Your task to perform on an android device: search for starred emails in the gmail app Image 0: 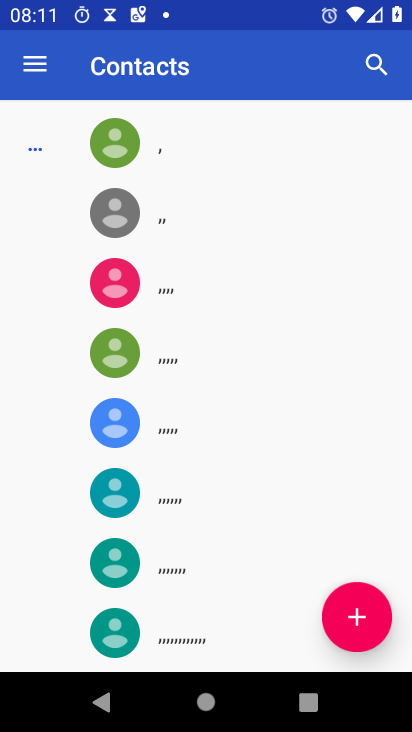
Step 0: press home button
Your task to perform on an android device: search for starred emails in the gmail app Image 1: 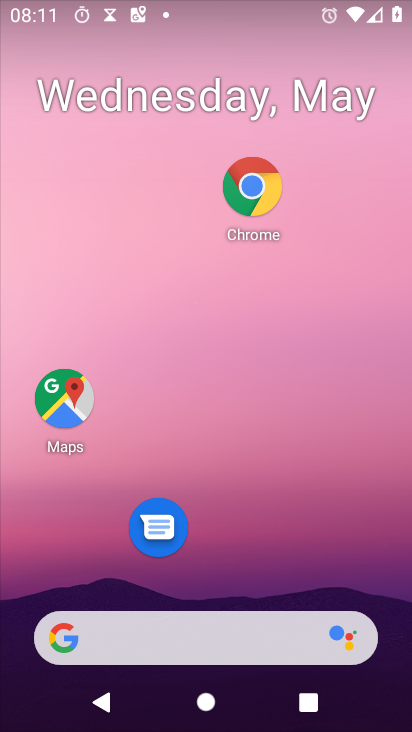
Step 1: drag from (293, 569) to (340, 52)
Your task to perform on an android device: search for starred emails in the gmail app Image 2: 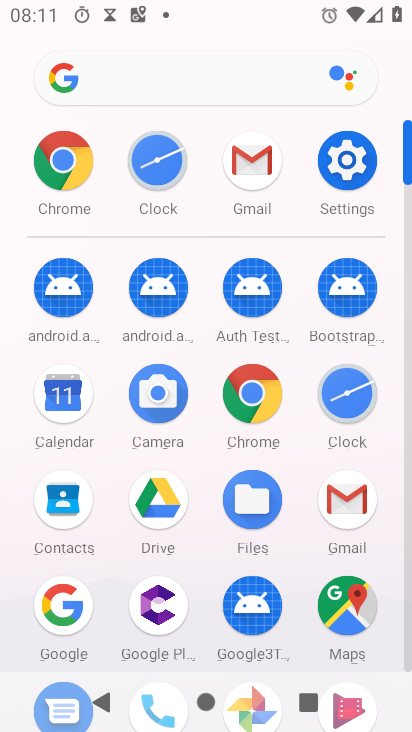
Step 2: click (340, 493)
Your task to perform on an android device: search for starred emails in the gmail app Image 3: 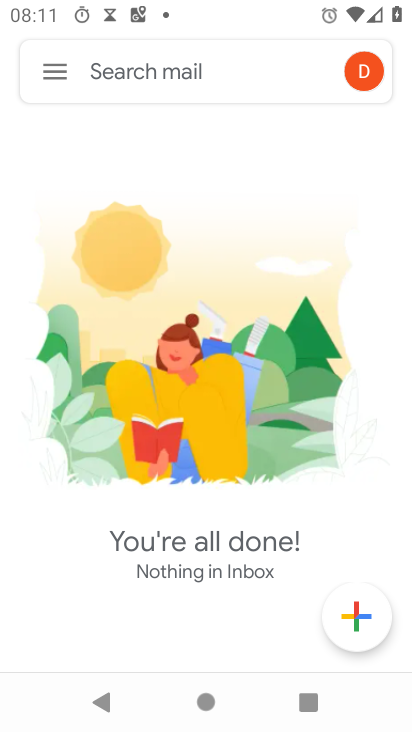
Step 3: click (51, 68)
Your task to perform on an android device: search for starred emails in the gmail app Image 4: 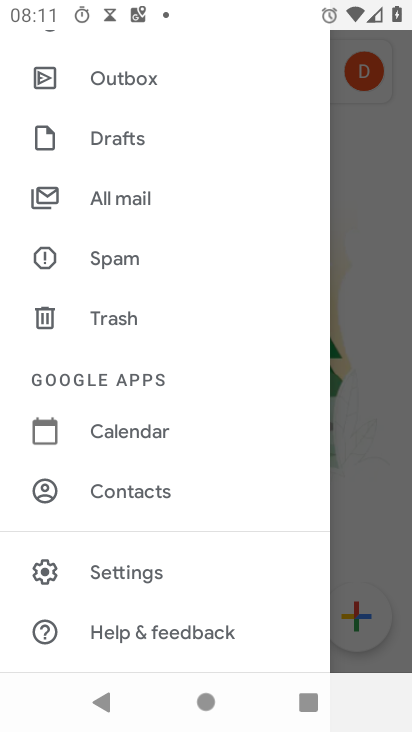
Step 4: drag from (186, 132) to (158, 484)
Your task to perform on an android device: search for starred emails in the gmail app Image 5: 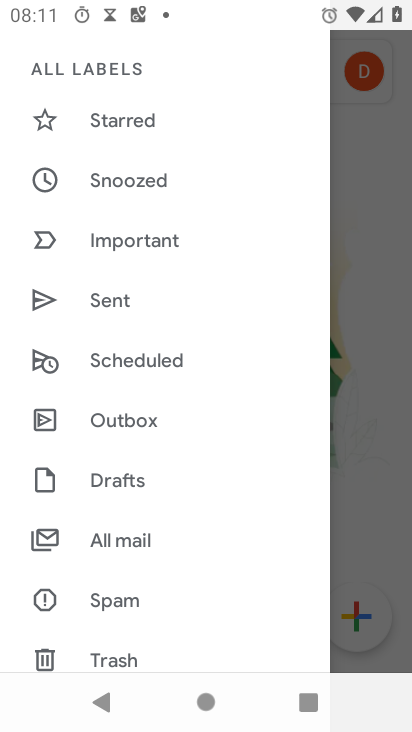
Step 5: click (112, 114)
Your task to perform on an android device: search for starred emails in the gmail app Image 6: 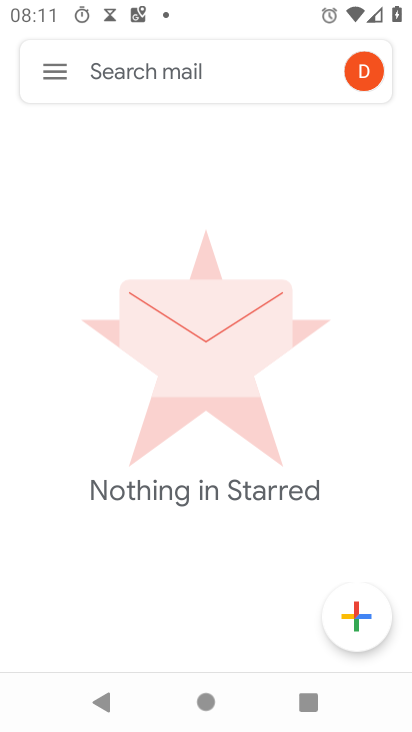
Step 6: task complete